Your task to perform on an android device: turn off notifications in google photos Image 0: 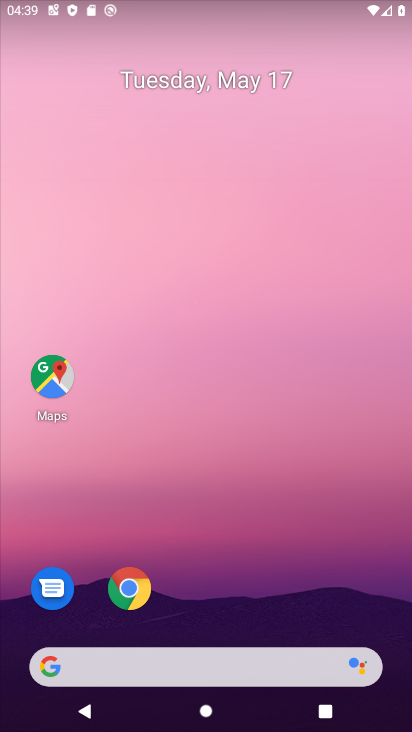
Step 0: drag from (274, 525) to (222, 146)
Your task to perform on an android device: turn off notifications in google photos Image 1: 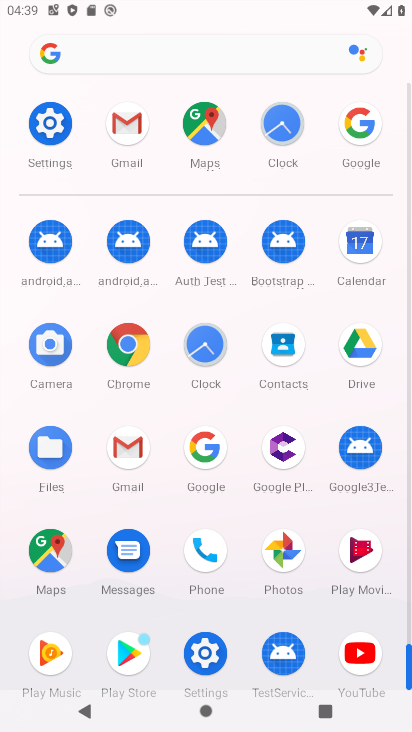
Step 1: click (283, 548)
Your task to perform on an android device: turn off notifications in google photos Image 2: 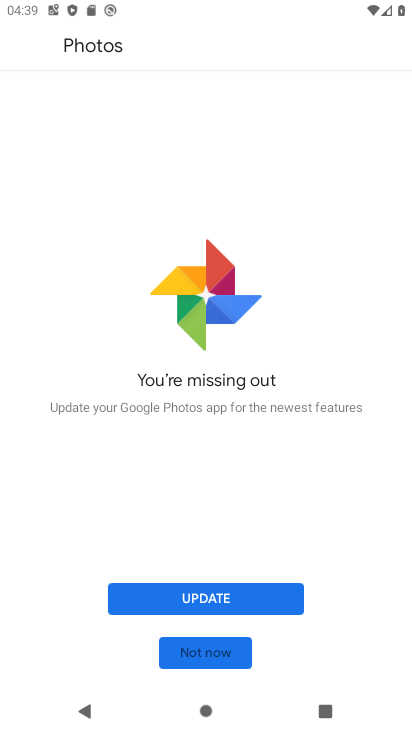
Step 2: click (193, 605)
Your task to perform on an android device: turn off notifications in google photos Image 3: 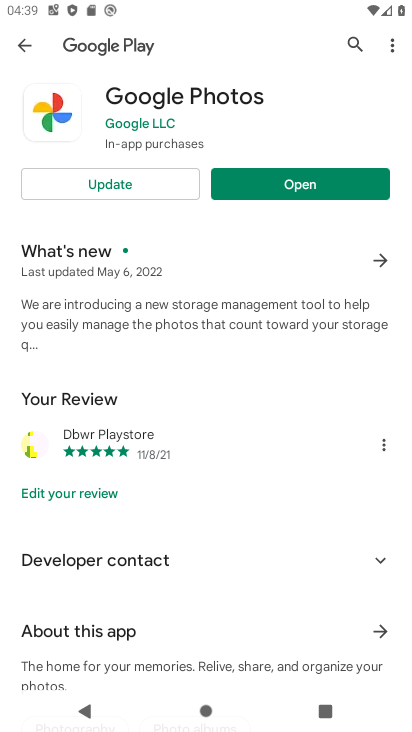
Step 3: click (120, 187)
Your task to perform on an android device: turn off notifications in google photos Image 4: 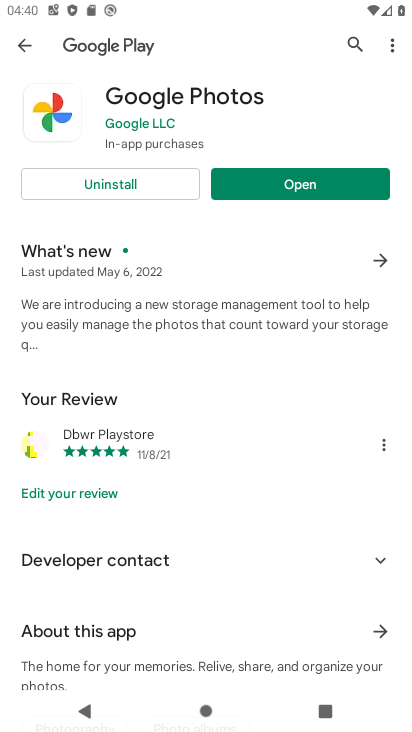
Step 4: click (300, 185)
Your task to perform on an android device: turn off notifications in google photos Image 5: 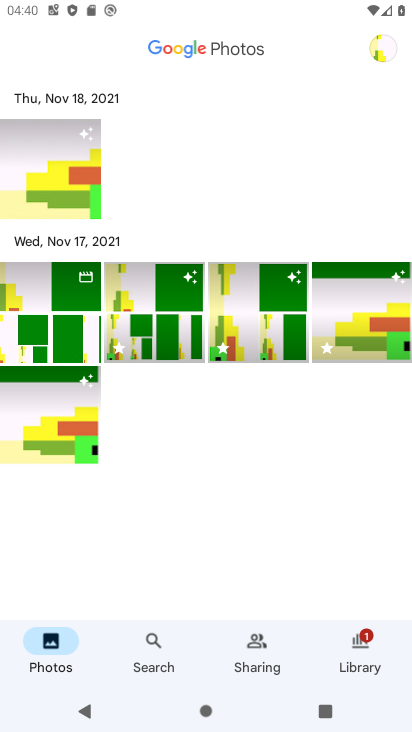
Step 5: click (383, 48)
Your task to perform on an android device: turn off notifications in google photos Image 6: 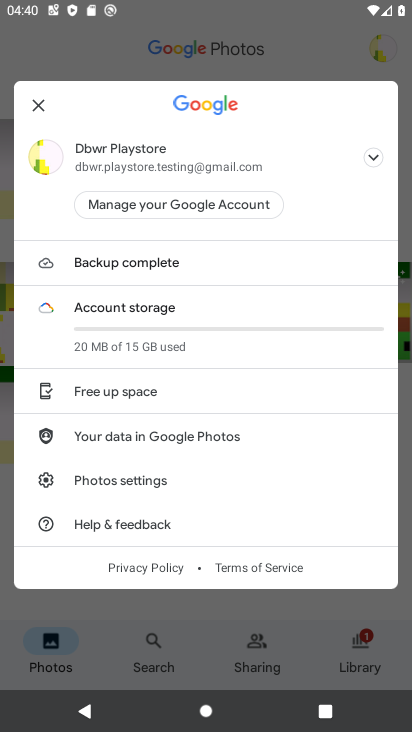
Step 6: click (149, 479)
Your task to perform on an android device: turn off notifications in google photos Image 7: 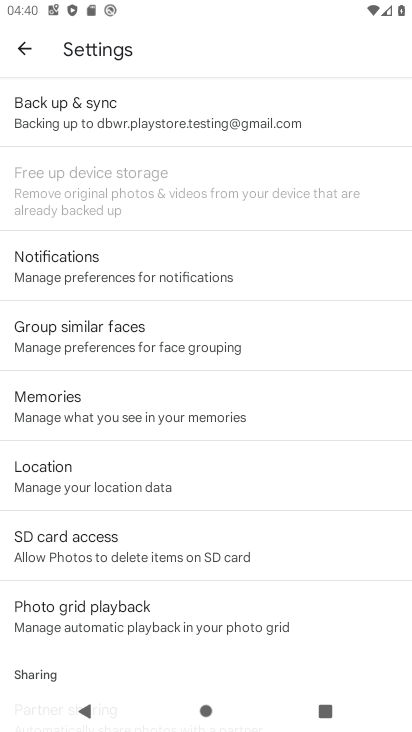
Step 7: click (119, 279)
Your task to perform on an android device: turn off notifications in google photos Image 8: 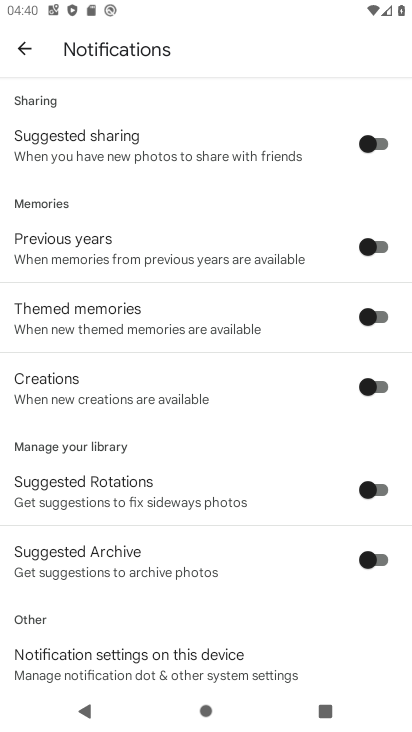
Step 8: drag from (125, 611) to (150, 439)
Your task to perform on an android device: turn off notifications in google photos Image 9: 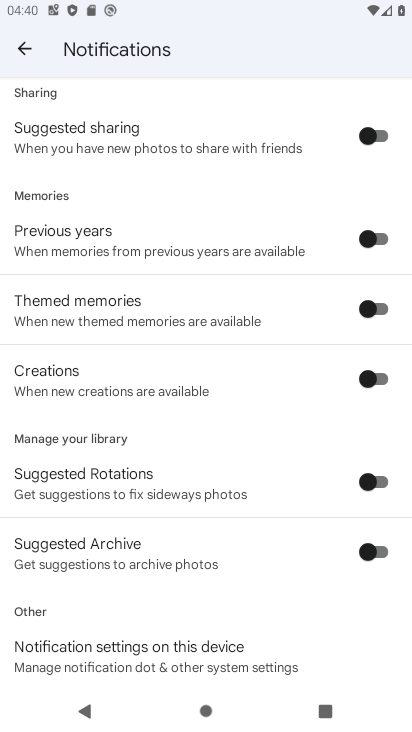
Step 9: click (123, 643)
Your task to perform on an android device: turn off notifications in google photos Image 10: 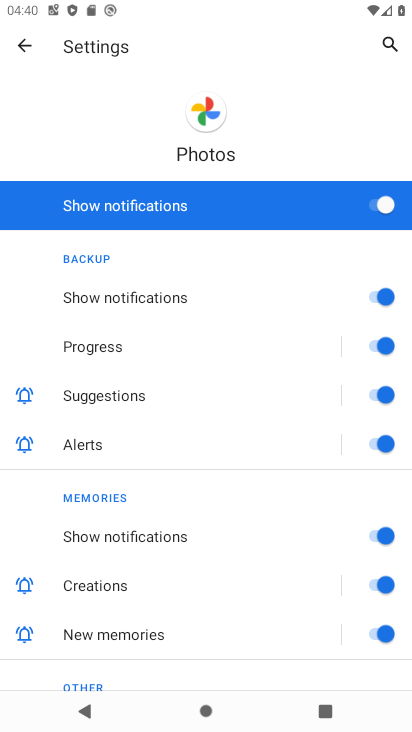
Step 10: click (384, 210)
Your task to perform on an android device: turn off notifications in google photos Image 11: 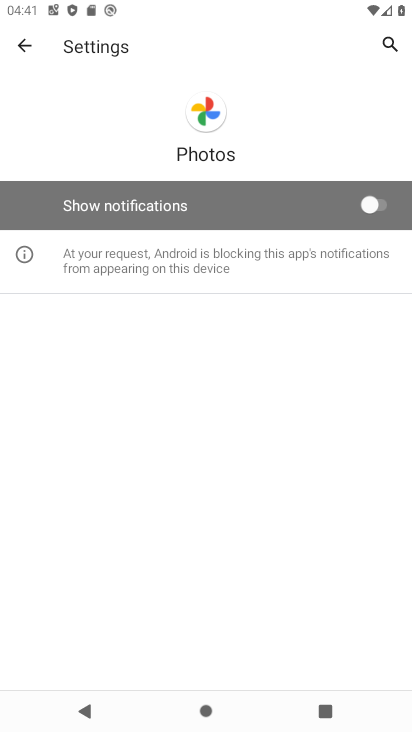
Step 11: task complete